Your task to perform on an android device: create a new album in the google photos Image 0: 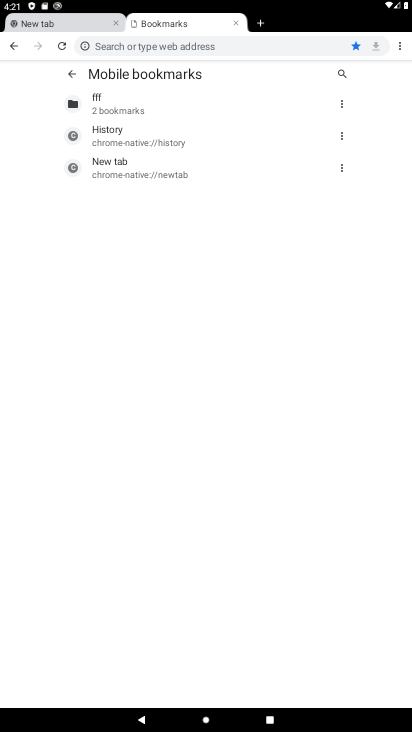
Step 0: press home button
Your task to perform on an android device: create a new album in the google photos Image 1: 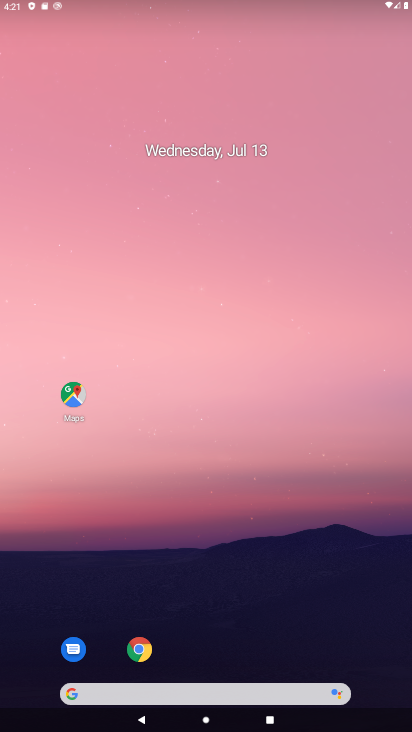
Step 1: drag from (340, 573) to (293, 28)
Your task to perform on an android device: create a new album in the google photos Image 2: 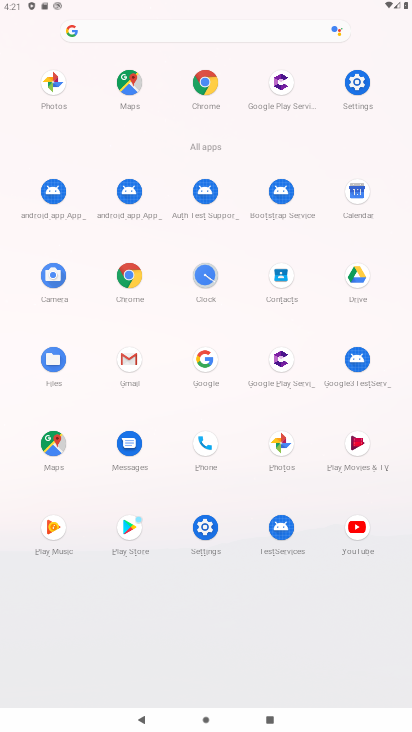
Step 2: click (51, 88)
Your task to perform on an android device: create a new album in the google photos Image 3: 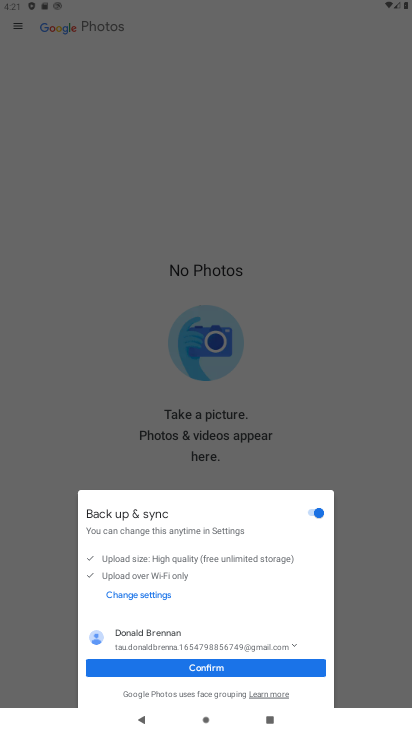
Step 3: click (212, 668)
Your task to perform on an android device: create a new album in the google photos Image 4: 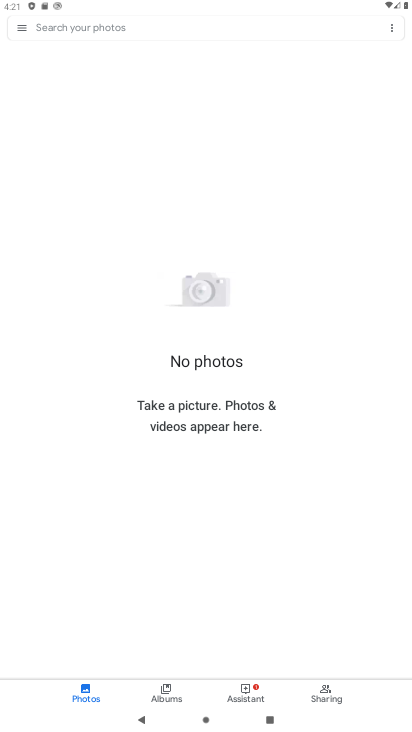
Step 4: click (161, 679)
Your task to perform on an android device: create a new album in the google photos Image 5: 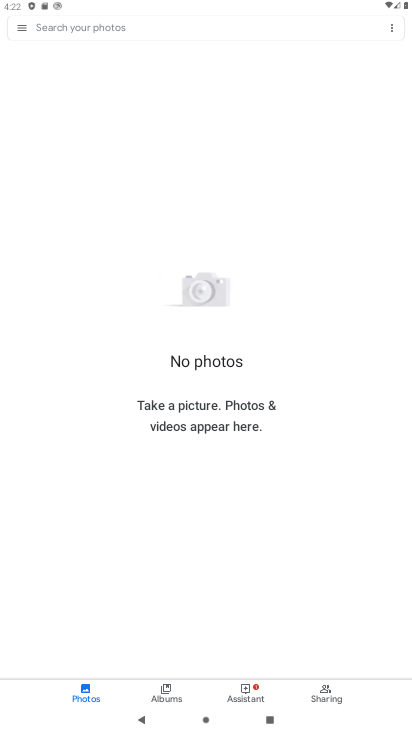
Step 5: click (171, 686)
Your task to perform on an android device: create a new album in the google photos Image 6: 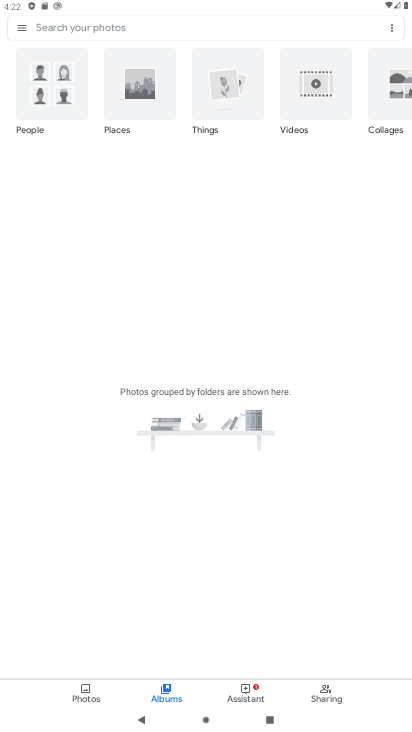
Step 6: task complete